Your task to perform on an android device: see sites visited before in the chrome app Image 0: 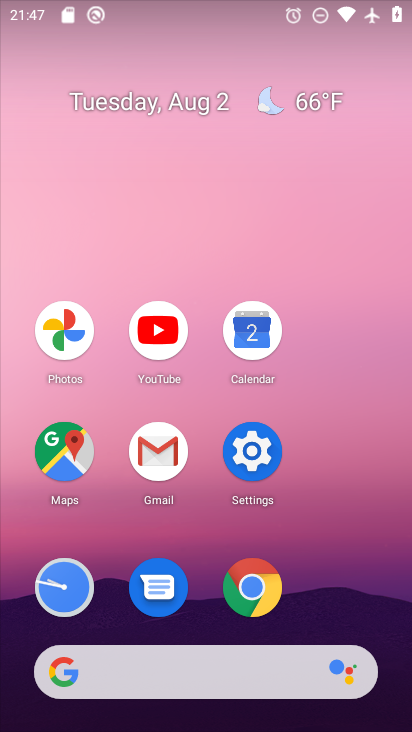
Step 0: click (258, 594)
Your task to perform on an android device: see sites visited before in the chrome app Image 1: 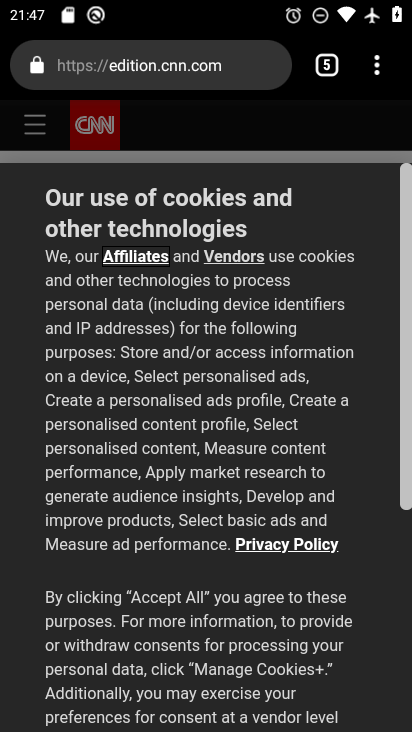
Step 1: click (376, 74)
Your task to perform on an android device: see sites visited before in the chrome app Image 2: 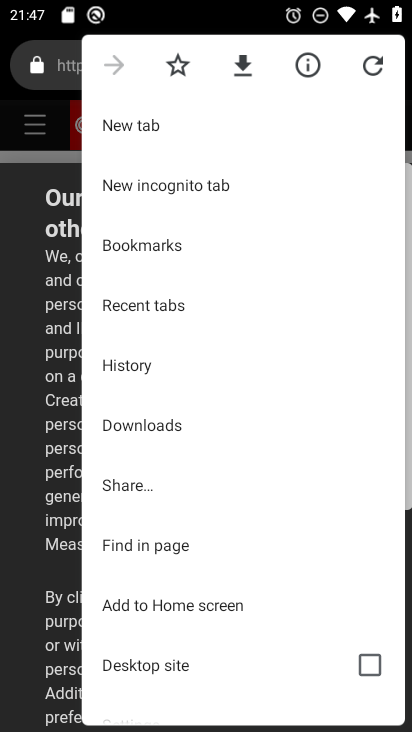
Step 2: click (129, 361)
Your task to perform on an android device: see sites visited before in the chrome app Image 3: 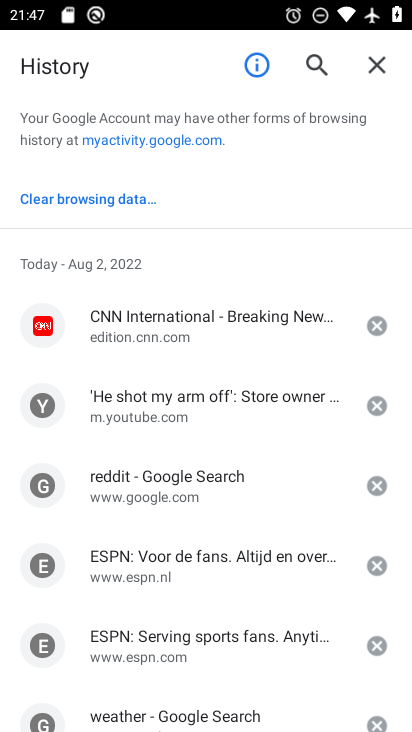
Step 3: task complete